Your task to perform on an android device: refresh tabs in the chrome app Image 0: 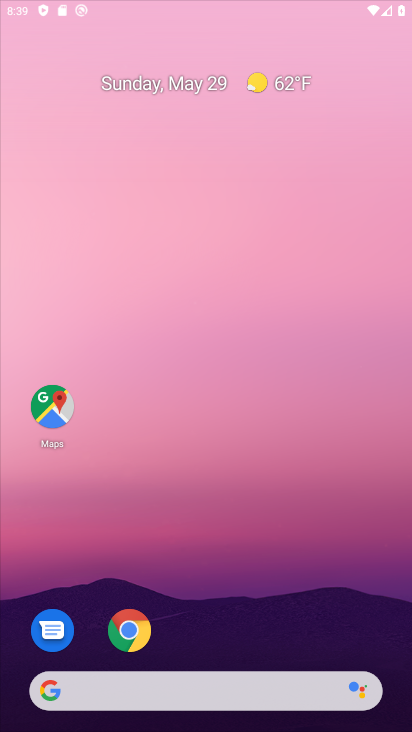
Step 0: click (329, 240)
Your task to perform on an android device: refresh tabs in the chrome app Image 1: 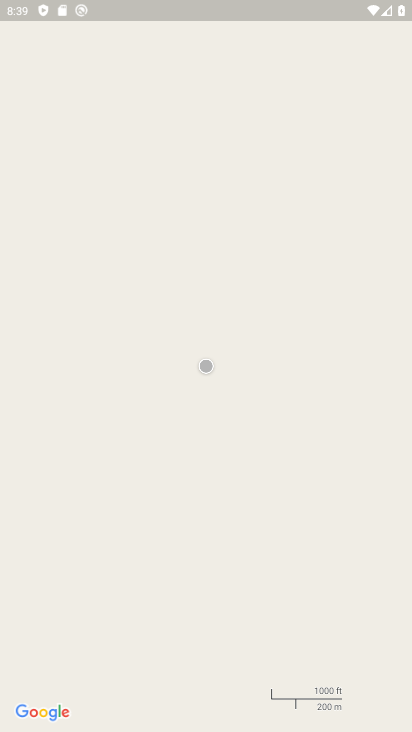
Step 1: press home button
Your task to perform on an android device: refresh tabs in the chrome app Image 2: 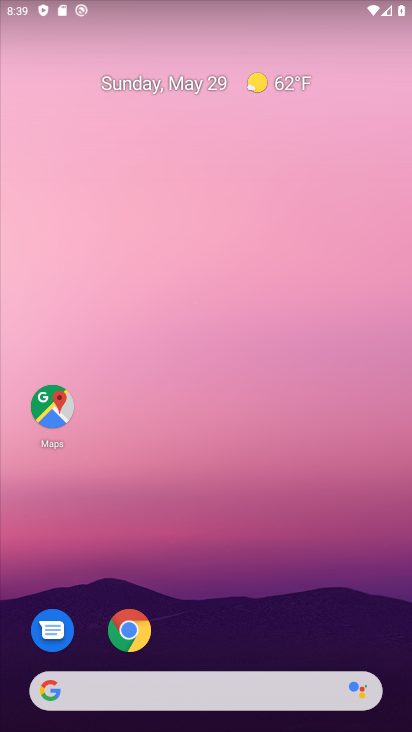
Step 2: click (137, 620)
Your task to perform on an android device: refresh tabs in the chrome app Image 3: 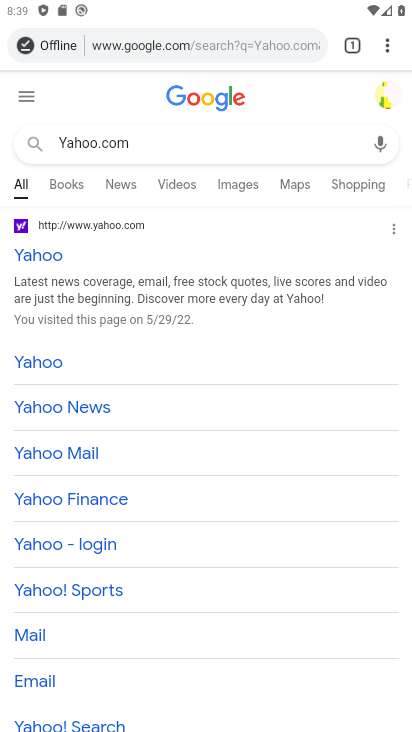
Step 3: click (388, 49)
Your task to perform on an android device: refresh tabs in the chrome app Image 4: 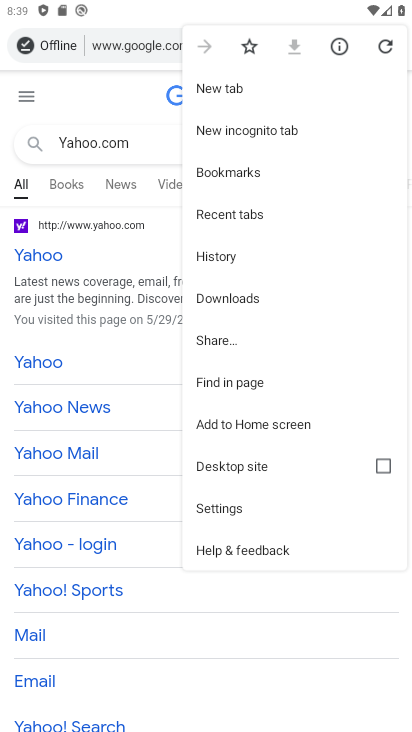
Step 4: click (387, 41)
Your task to perform on an android device: refresh tabs in the chrome app Image 5: 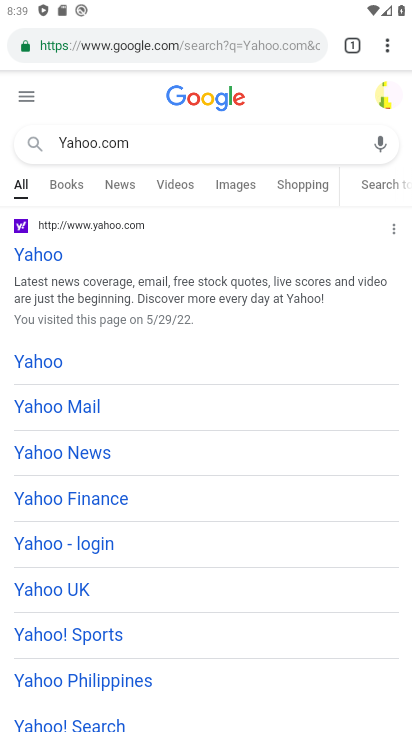
Step 5: task complete